Your task to perform on an android device: Open accessibility settings Image 0: 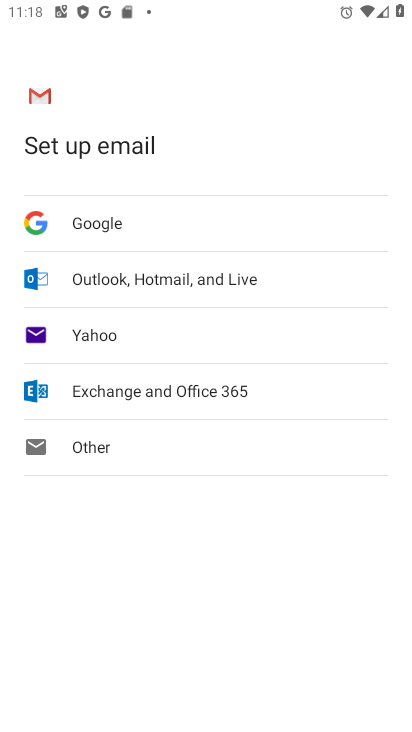
Step 0: press home button
Your task to perform on an android device: Open accessibility settings Image 1: 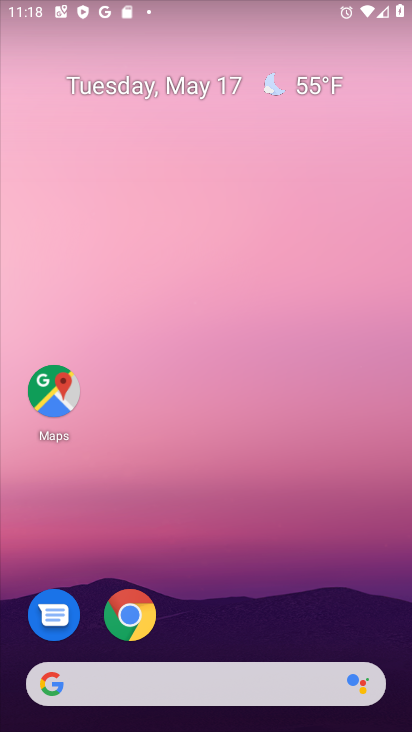
Step 1: drag from (272, 588) to (303, 164)
Your task to perform on an android device: Open accessibility settings Image 2: 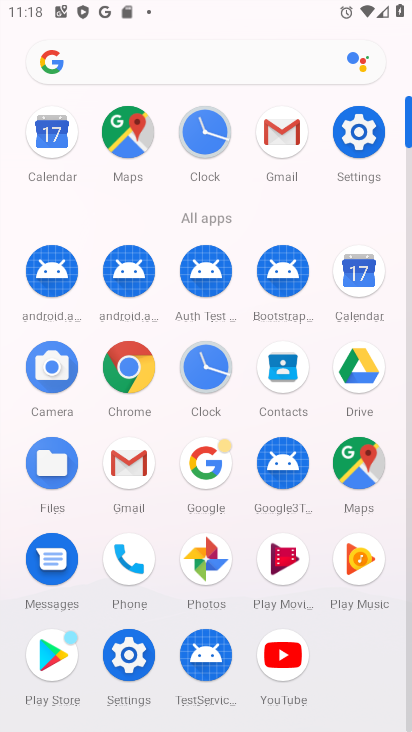
Step 2: click (358, 141)
Your task to perform on an android device: Open accessibility settings Image 3: 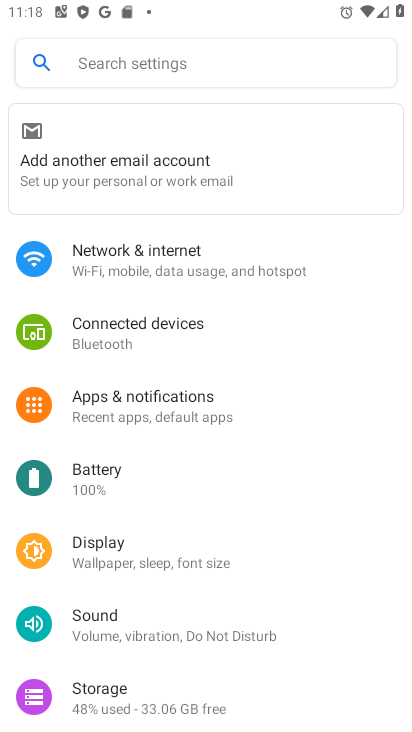
Step 3: drag from (323, 656) to (285, 137)
Your task to perform on an android device: Open accessibility settings Image 4: 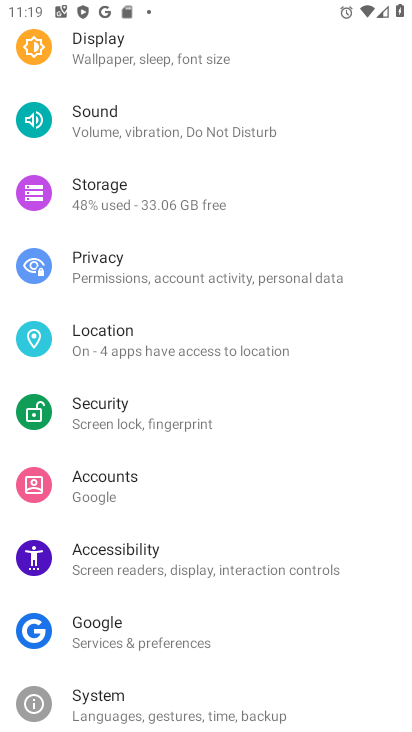
Step 4: click (182, 562)
Your task to perform on an android device: Open accessibility settings Image 5: 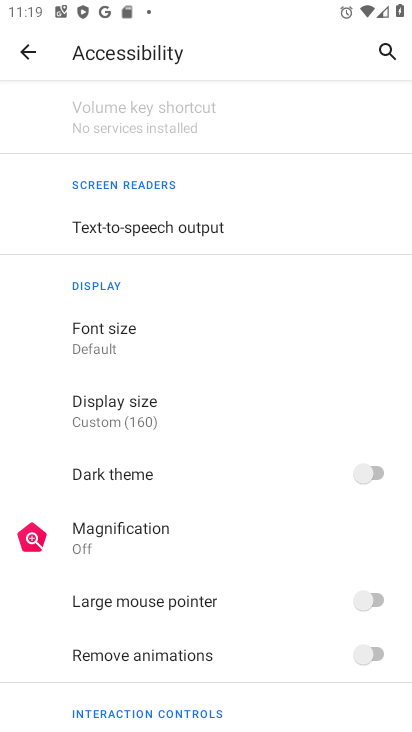
Step 5: task complete